Your task to perform on an android device: turn on javascript in the chrome app Image 0: 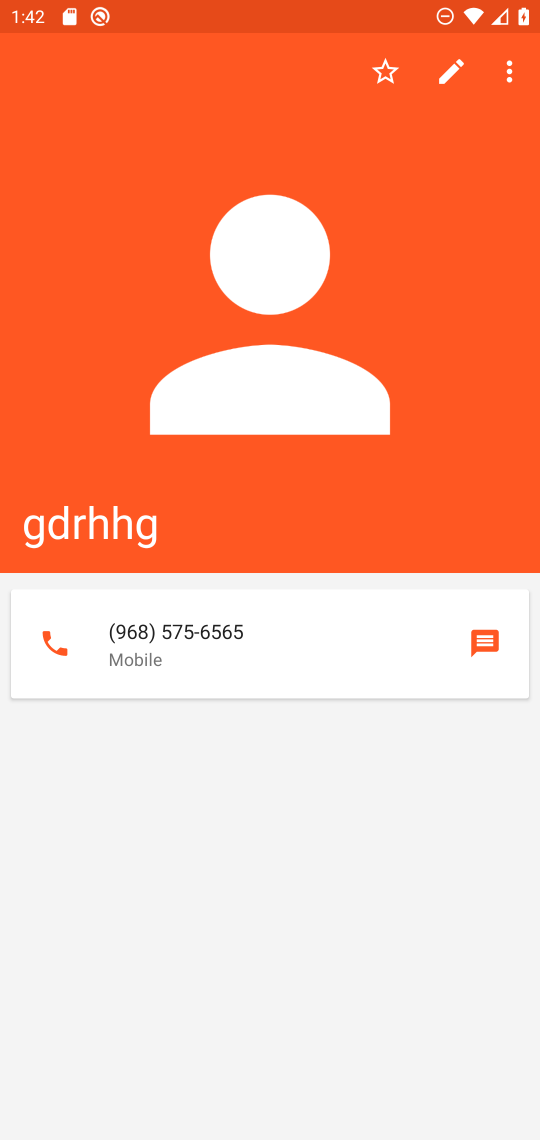
Step 0: press home button
Your task to perform on an android device: turn on javascript in the chrome app Image 1: 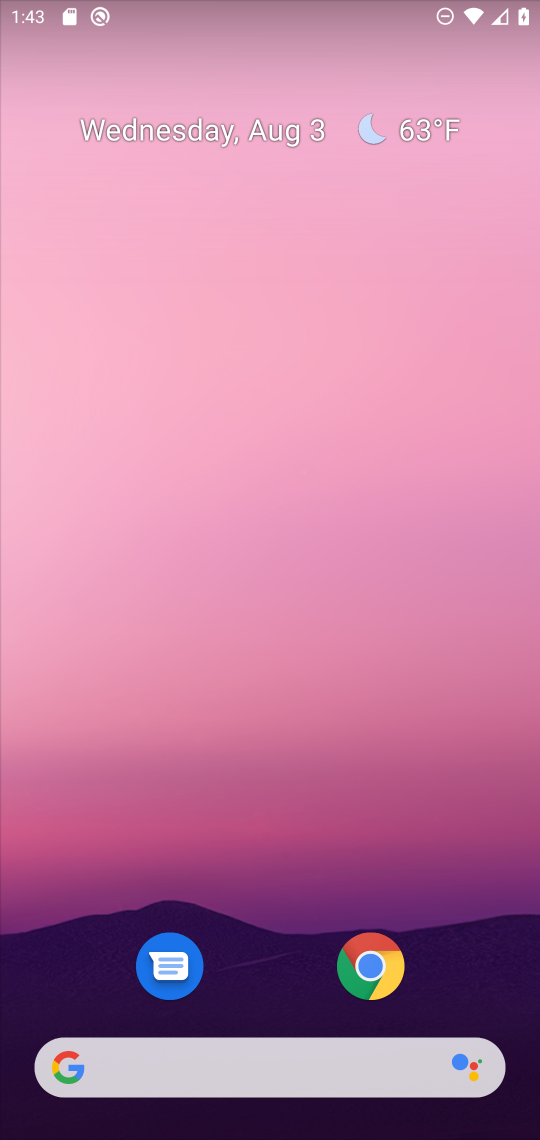
Step 1: click (370, 980)
Your task to perform on an android device: turn on javascript in the chrome app Image 2: 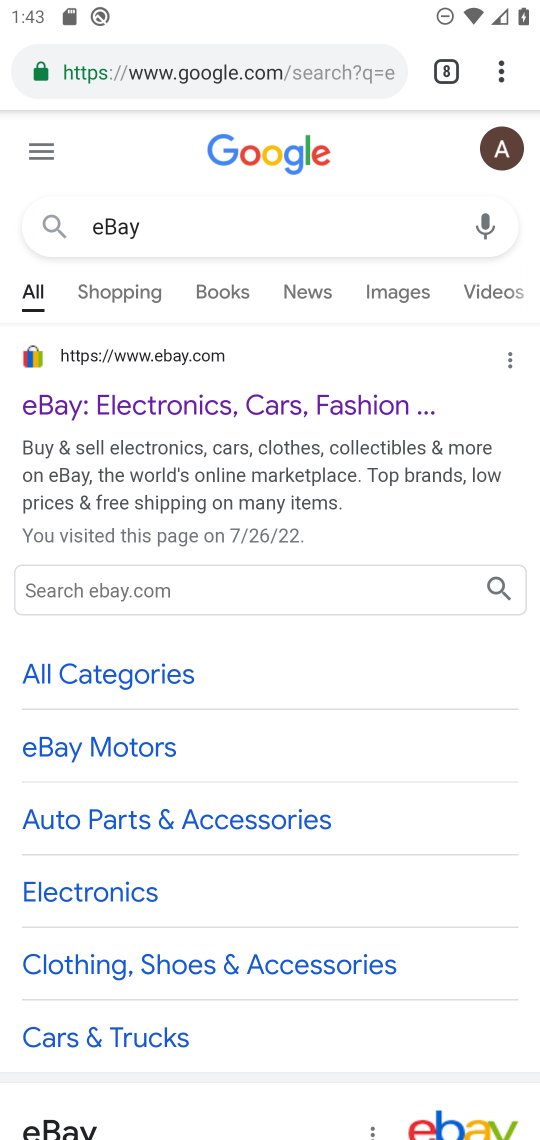
Step 2: click (502, 65)
Your task to perform on an android device: turn on javascript in the chrome app Image 3: 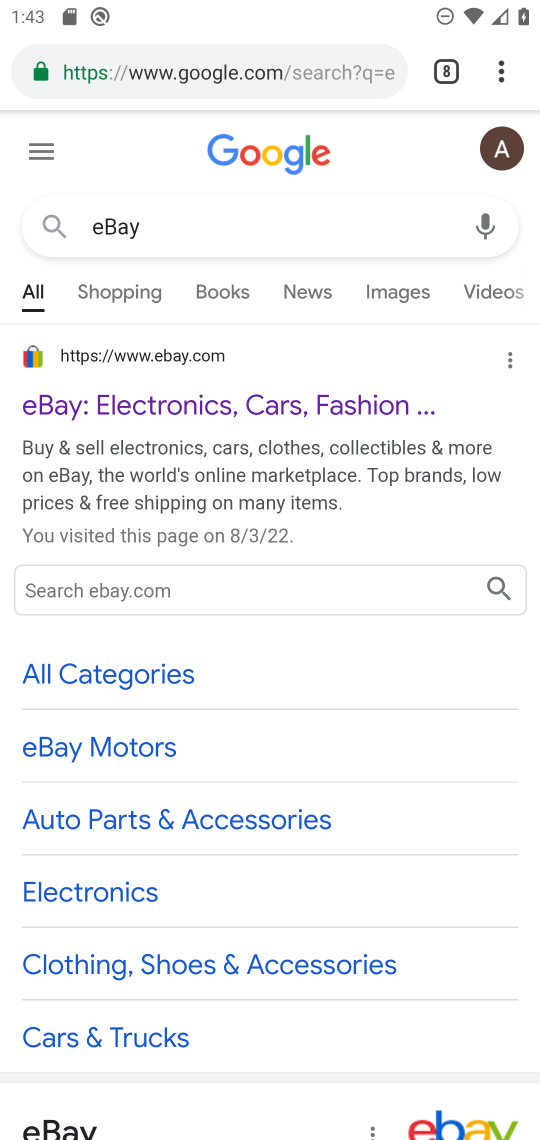
Step 3: click (489, 76)
Your task to perform on an android device: turn on javascript in the chrome app Image 4: 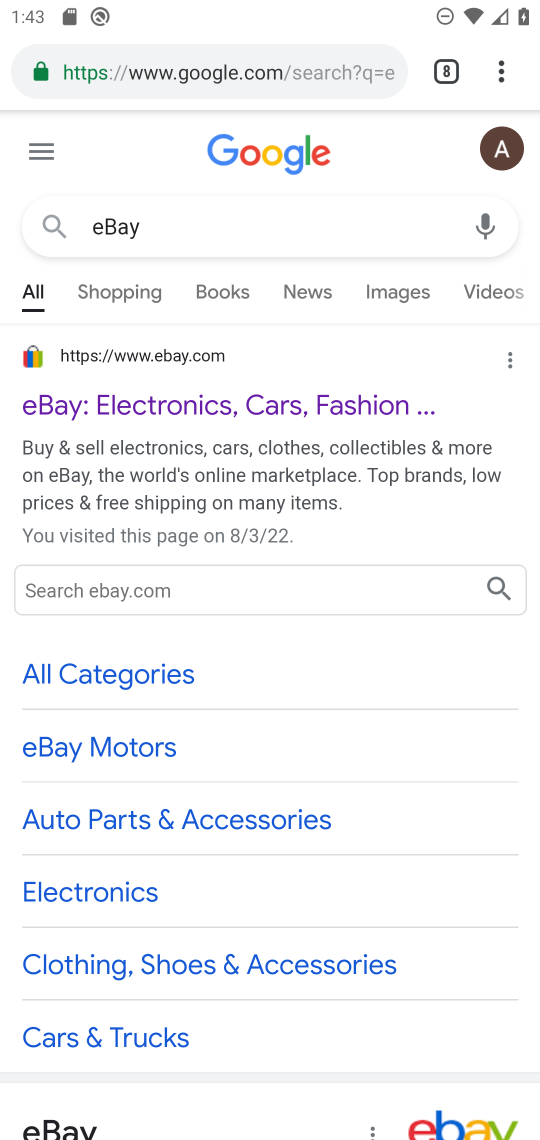
Step 4: click (483, 73)
Your task to perform on an android device: turn on javascript in the chrome app Image 5: 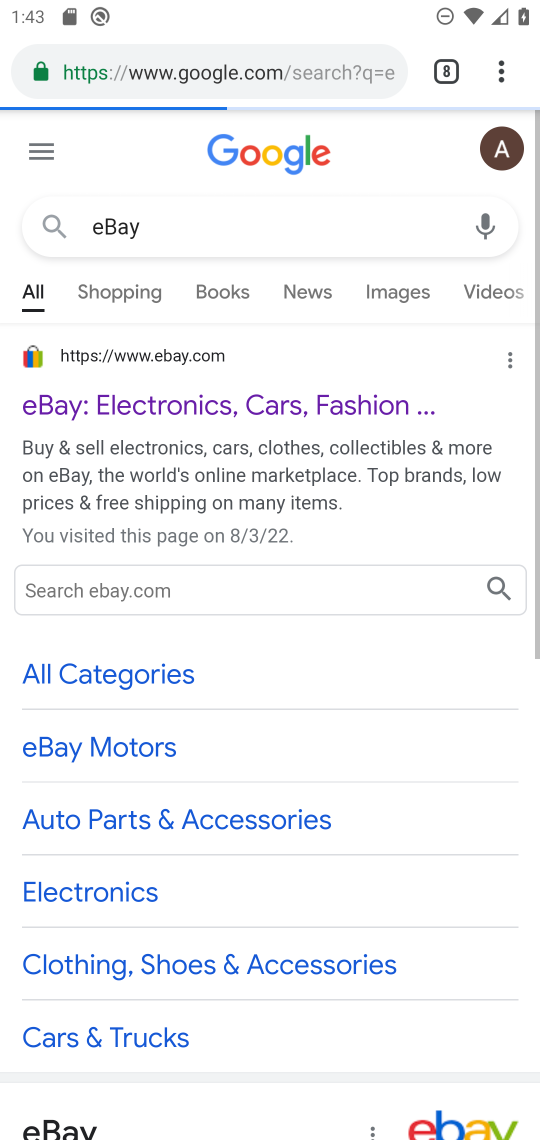
Step 5: drag from (488, 76) to (255, 798)
Your task to perform on an android device: turn on javascript in the chrome app Image 6: 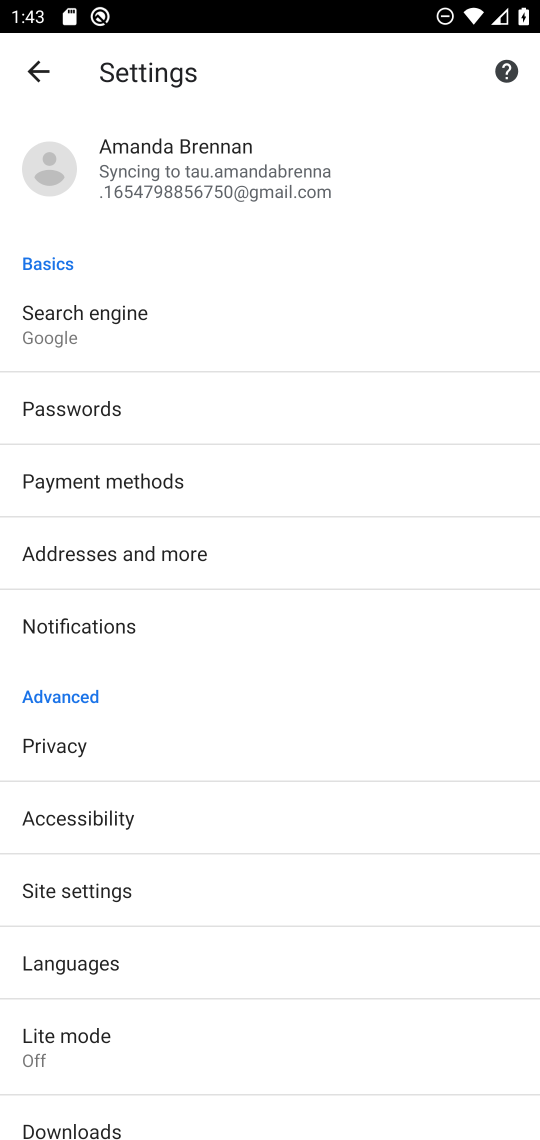
Step 6: click (148, 887)
Your task to perform on an android device: turn on javascript in the chrome app Image 7: 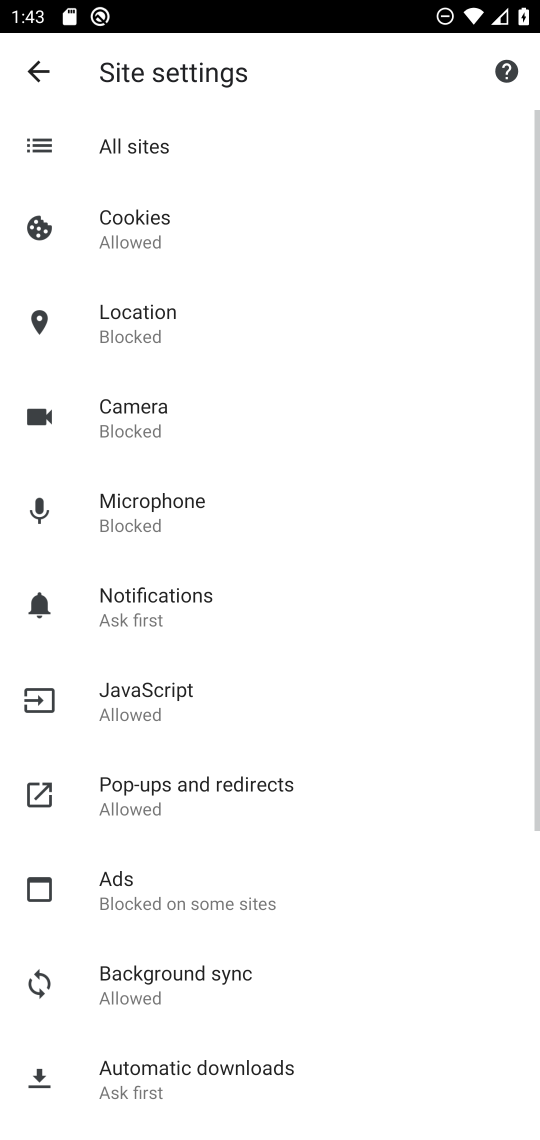
Step 7: click (211, 703)
Your task to perform on an android device: turn on javascript in the chrome app Image 8: 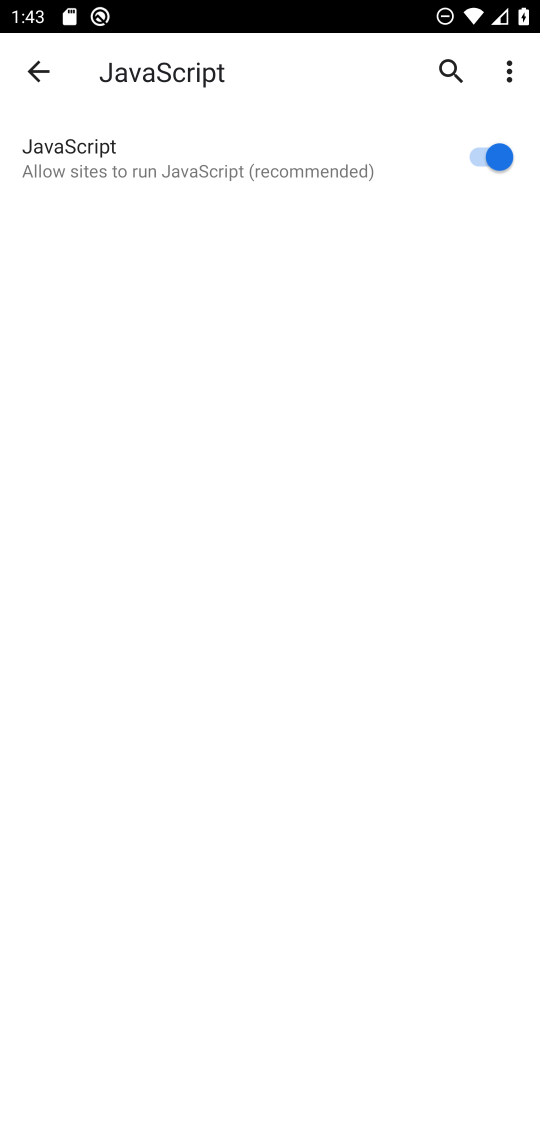
Step 8: task complete